Your task to perform on an android device: Go to calendar. Show me events next week Image 0: 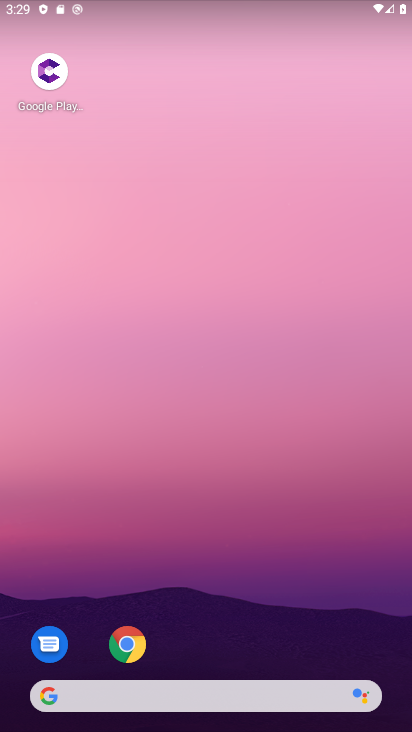
Step 0: drag from (145, 724) to (161, 84)
Your task to perform on an android device: Go to calendar. Show me events next week Image 1: 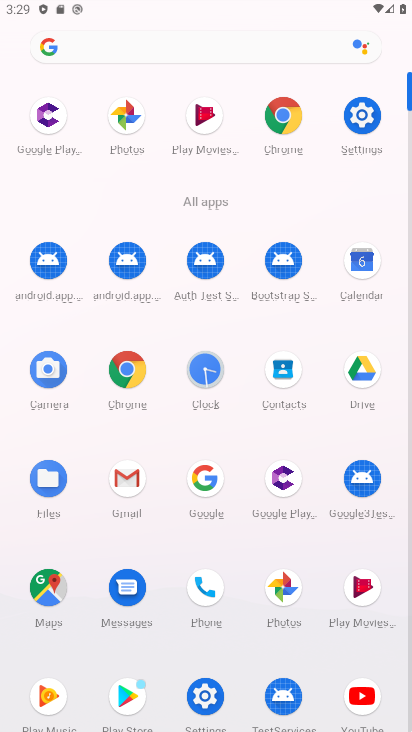
Step 1: click (364, 278)
Your task to perform on an android device: Go to calendar. Show me events next week Image 2: 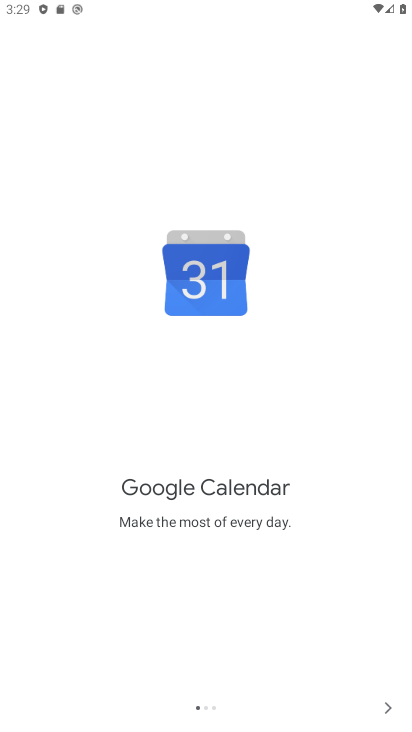
Step 2: click (375, 704)
Your task to perform on an android device: Go to calendar. Show me events next week Image 3: 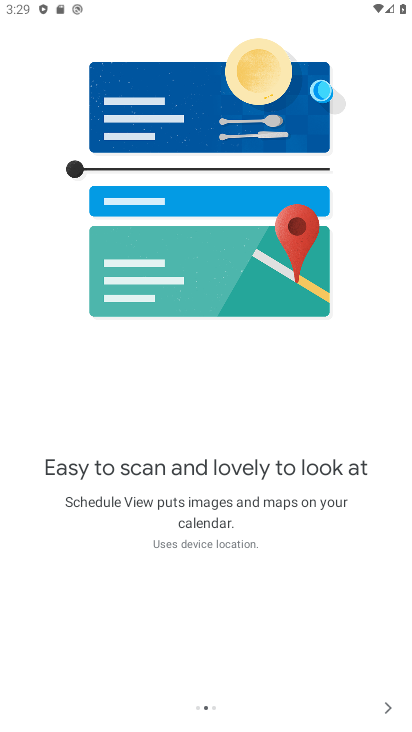
Step 3: click (391, 708)
Your task to perform on an android device: Go to calendar. Show me events next week Image 4: 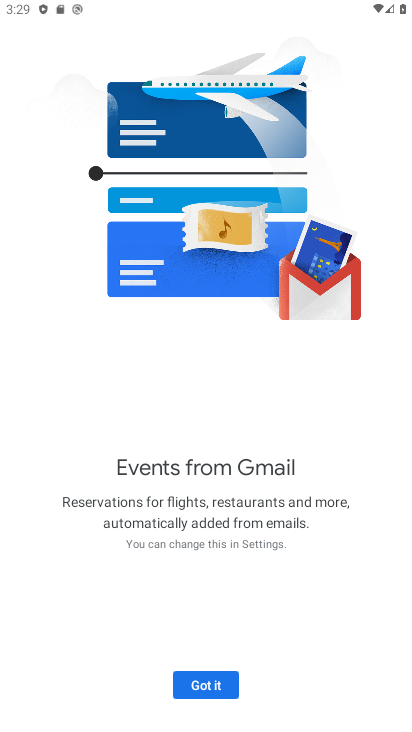
Step 4: click (208, 697)
Your task to perform on an android device: Go to calendar. Show me events next week Image 5: 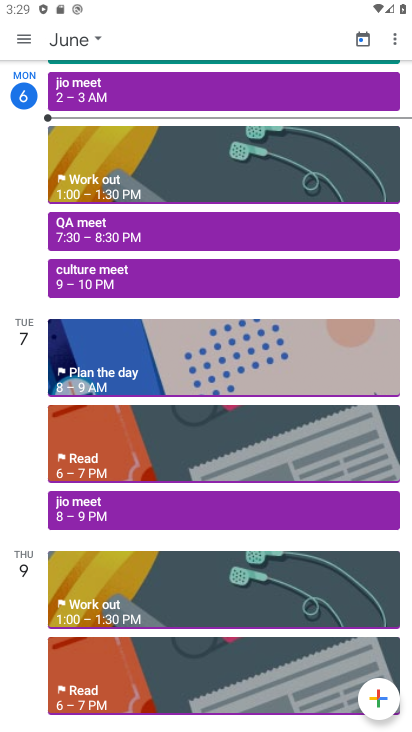
Step 5: click (19, 42)
Your task to perform on an android device: Go to calendar. Show me events next week Image 6: 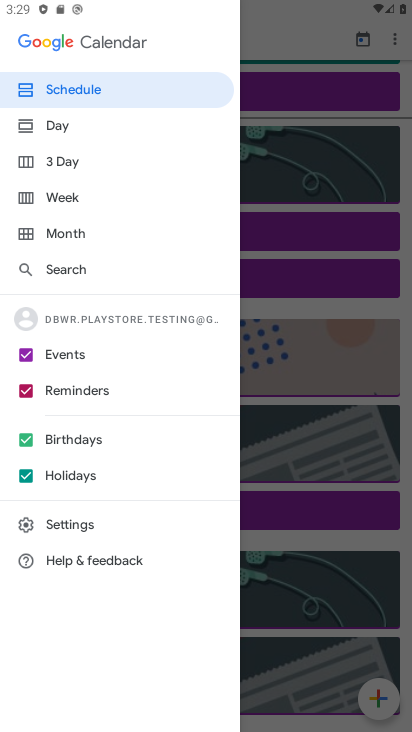
Step 6: click (26, 479)
Your task to perform on an android device: Go to calendar. Show me events next week Image 7: 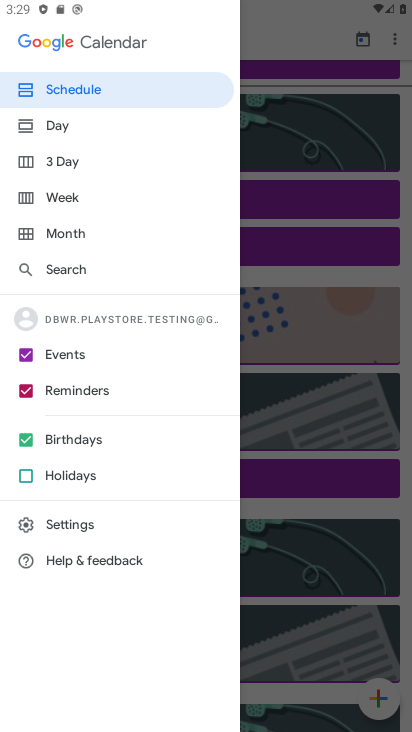
Step 7: click (22, 443)
Your task to perform on an android device: Go to calendar. Show me events next week Image 8: 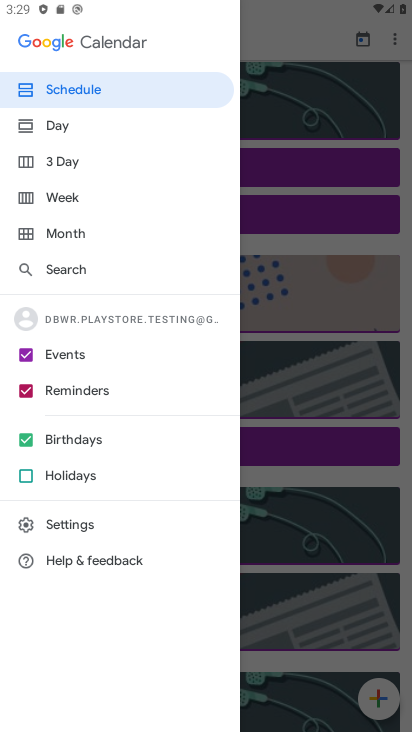
Step 8: click (24, 384)
Your task to perform on an android device: Go to calendar. Show me events next week Image 9: 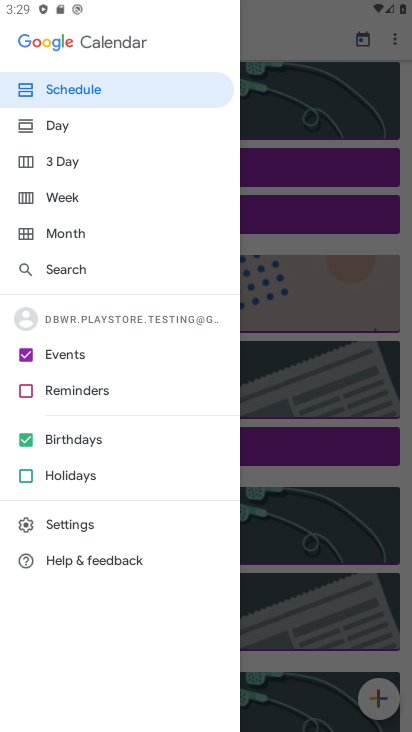
Step 9: click (51, 199)
Your task to perform on an android device: Go to calendar. Show me events next week Image 10: 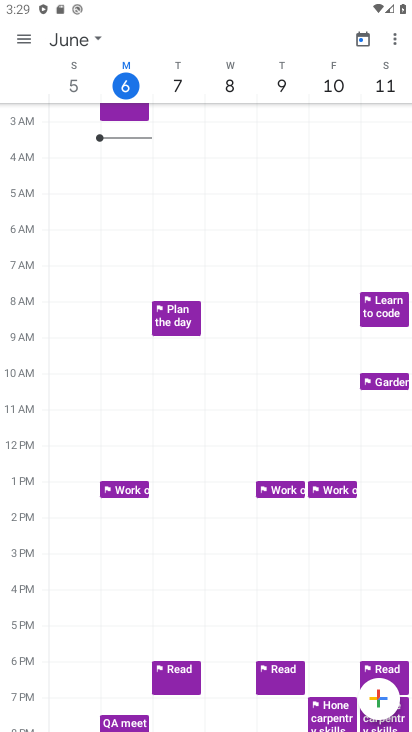
Step 10: task complete